Your task to perform on an android device: turn off data saver in the chrome app Image 0: 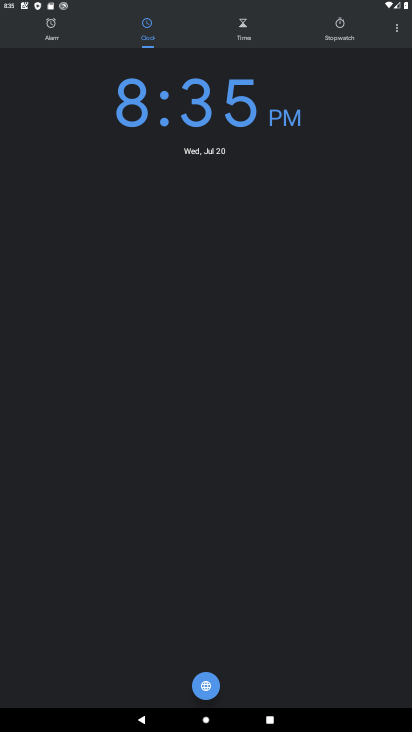
Step 0: press home button
Your task to perform on an android device: turn off data saver in the chrome app Image 1: 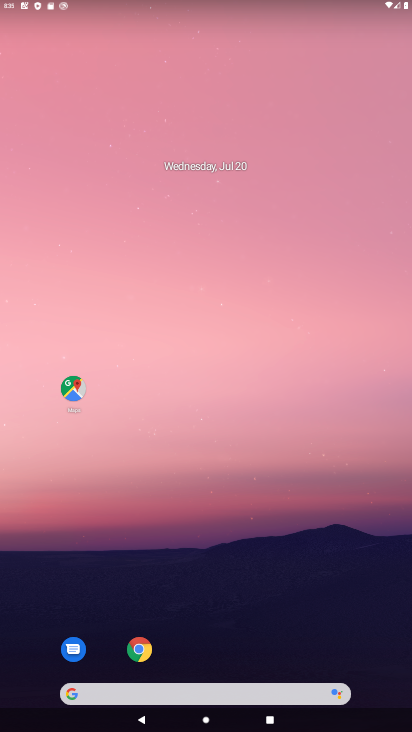
Step 1: drag from (232, 661) to (299, 97)
Your task to perform on an android device: turn off data saver in the chrome app Image 2: 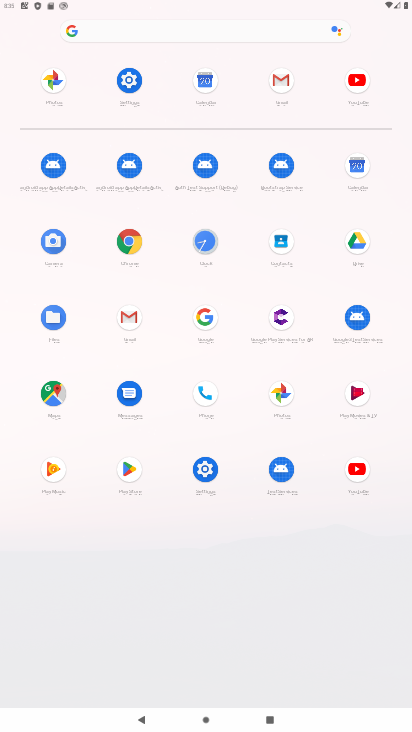
Step 2: click (130, 251)
Your task to perform on an android device: turn off data saver in the chrome app Image 3: 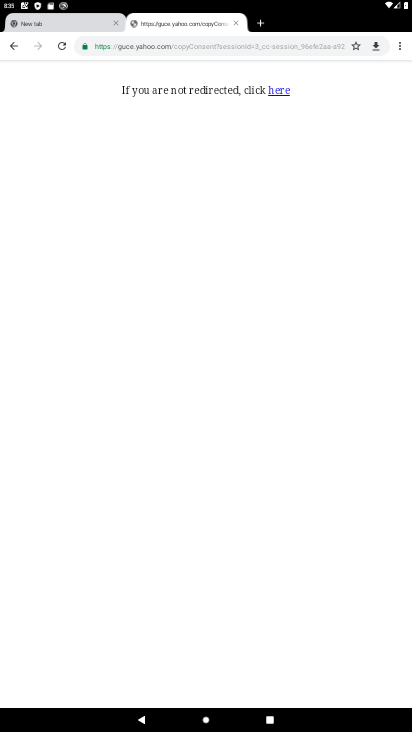
Step 3: click (397, 48)
Your task to perform on an android device: turn off data saver in the chrome app Image 4: 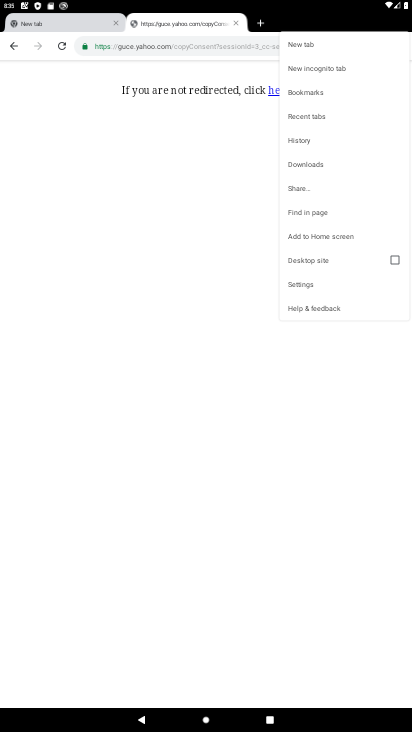
Step 4: click (309, 285)
Your task to perform on an android device: turn off data saver in the chrome app Image 5: 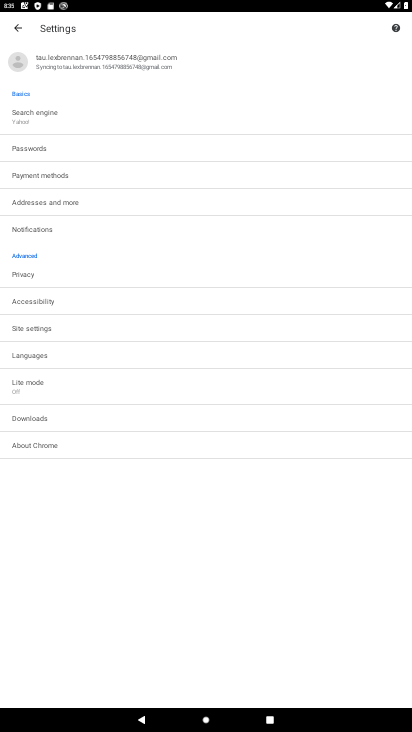
Step 5: task complete